Your task to perform on an android device: turn on bluetooth scan Image 0: 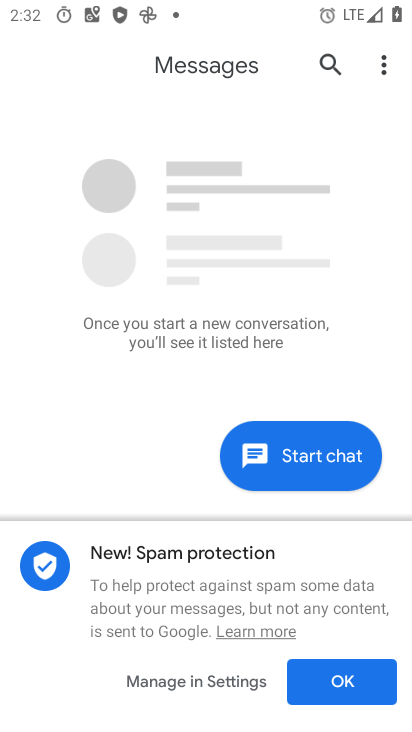
Step 0: press home button
Your task to perform on an android device: turn on bluetooth scan Image 1: 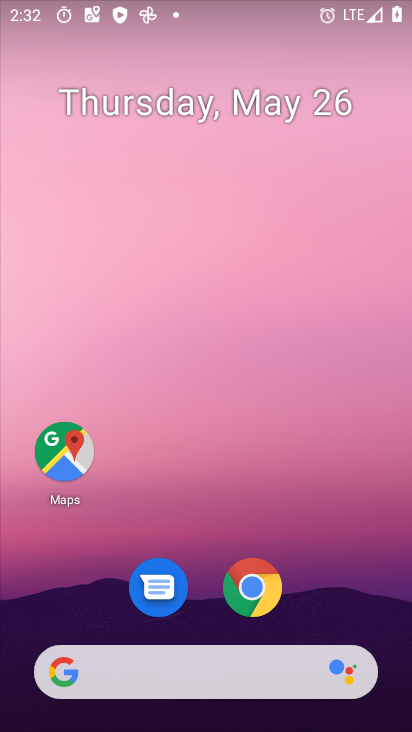
Step 1: drag from (351, 607) to (364, 168)
Your task to perform on an android device: turn on bluetooth scan Image 2: 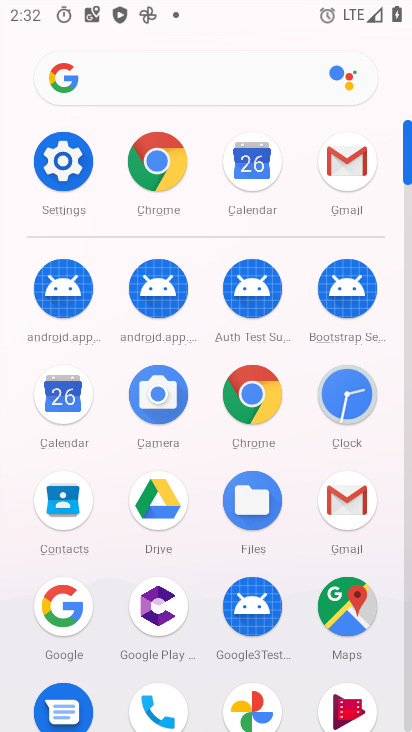
Step 2: click (69, 160)
Your task to perform on an android device: turn on bluetooth scan Image 3: 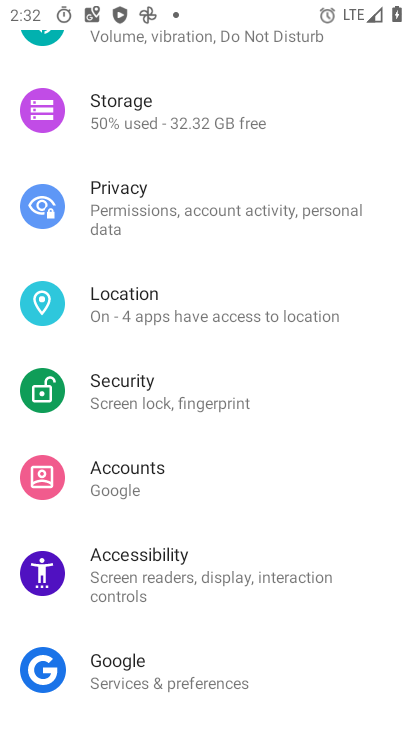
Step 3: drag from (340, 132) to (354, 214)
Your task to perform on an android device: turn on bluetooth scan Image 4: 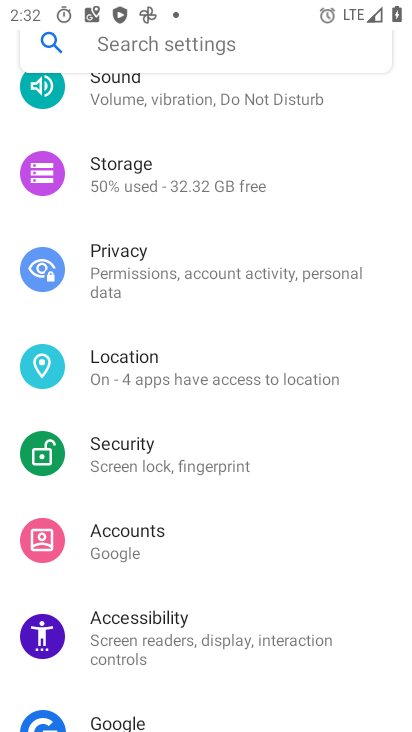
Step 4: drag from (356, 115) to (353, 236)
Your task to perform on an android device: turn on bluetooth scan Image 5: 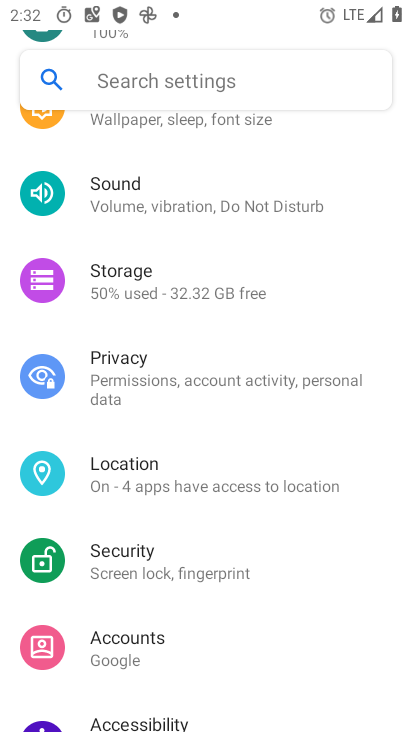
Step 5: drag from (354, 149) to (363, 257)
Your task to perform on an android device: turn on bluetooth scan Image 6: 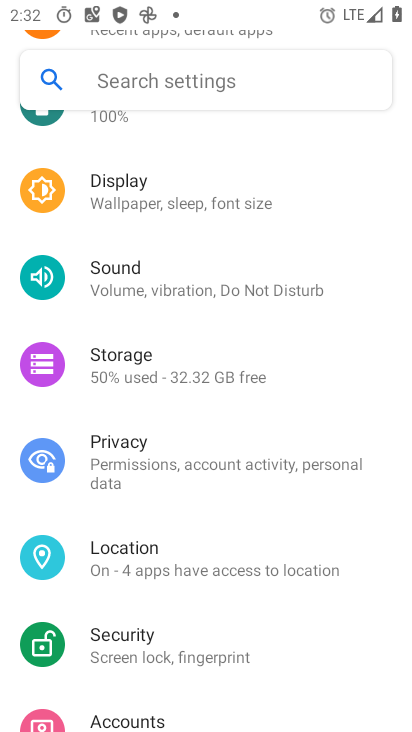
Step 6: drag from (354, 165) to (341, 277)
Your task to perform on an android device: turn on bluetooth scan Image 7: 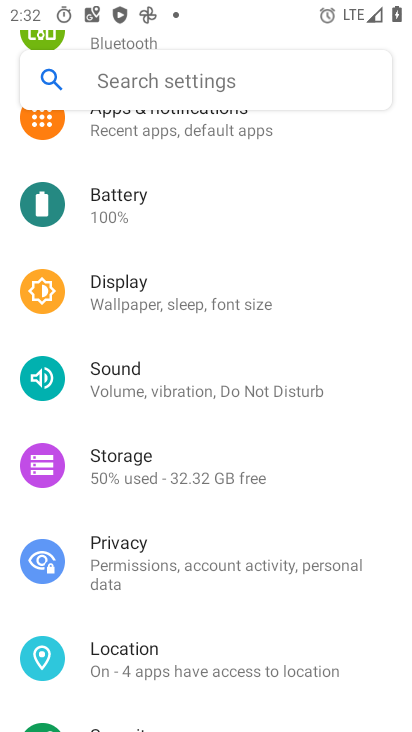
Step 7: drag from (332, 174) to (310, 286)
Your task to perform on an android device: turn on bluetooth scan Image 8: 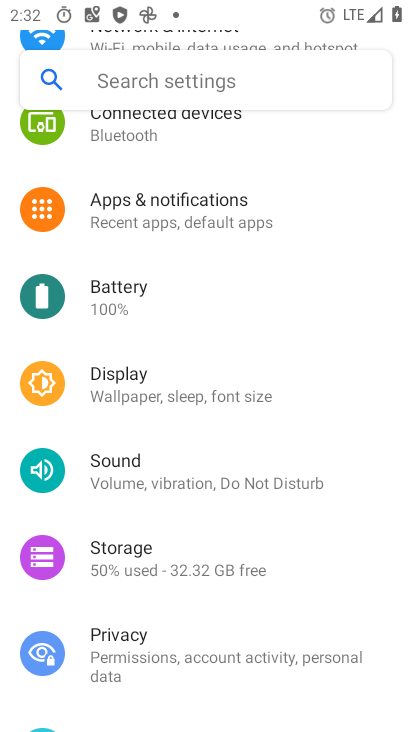
Step 8: drag from (319, 158) to (302, 297)
Your task to perform on an android device: turn on bluetooth scan Image 9: 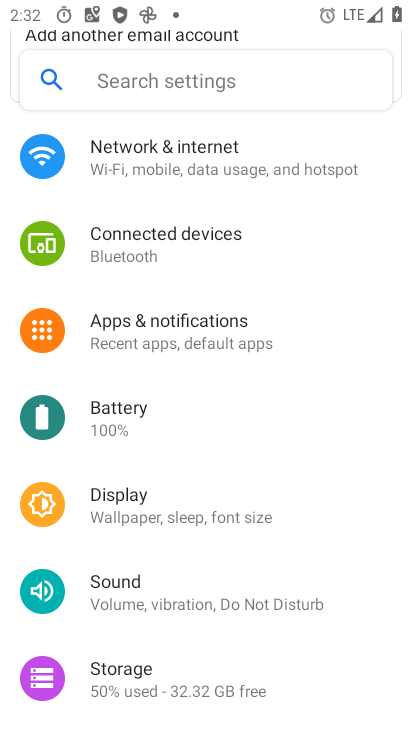
Step 9: drag from (344, 152) to (342, 306)
Your task to perform on an android device: turn on bluetooth scan Image 10: 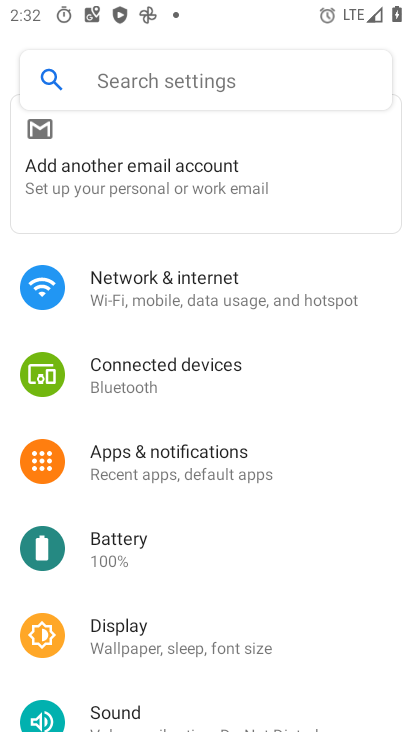
Step 10: drag from (335, 320) to (359, 200)
Your task to perform on an android device: turn on bluetooth scan Image 11: 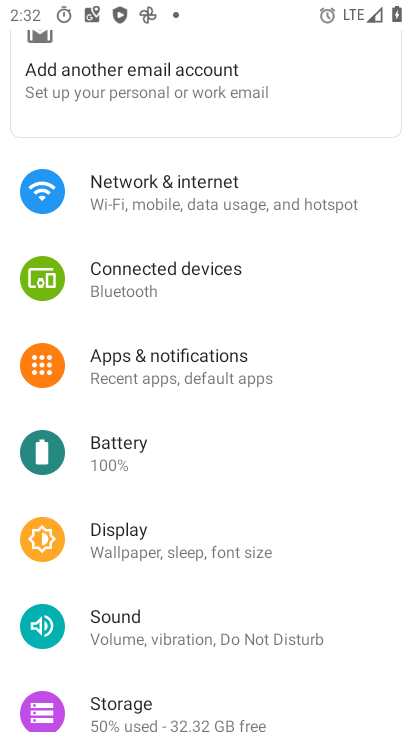
Step 11: drag from (343, 302) to (366, 187)
Your task to perform on an android device: turn on bluetooth scan Image 12: 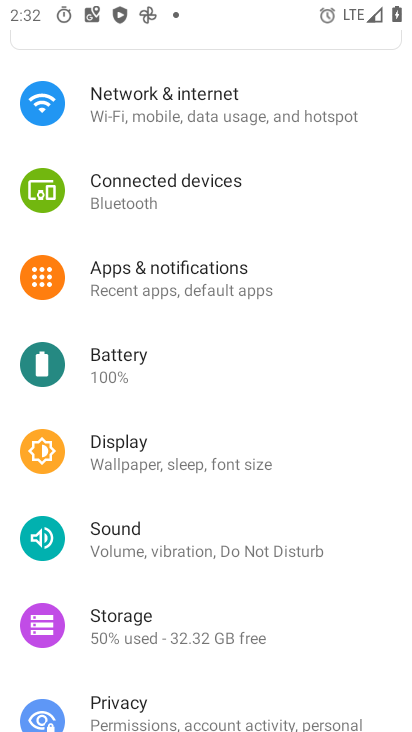
Step 12: drag from (343, 319) to (359, 199)
Your task to perform on an android device: turn on bluetooth scan Image 13: 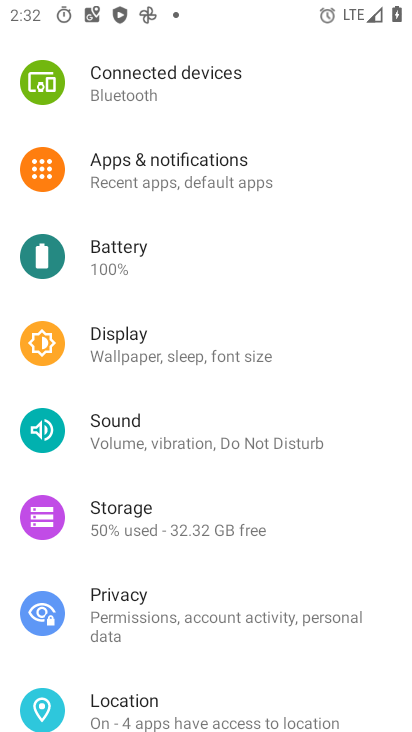
Step 13: drag from (364, 446) to (360, 293)
Your task to perform on an android device: turn on bluetooth scan Image 14: 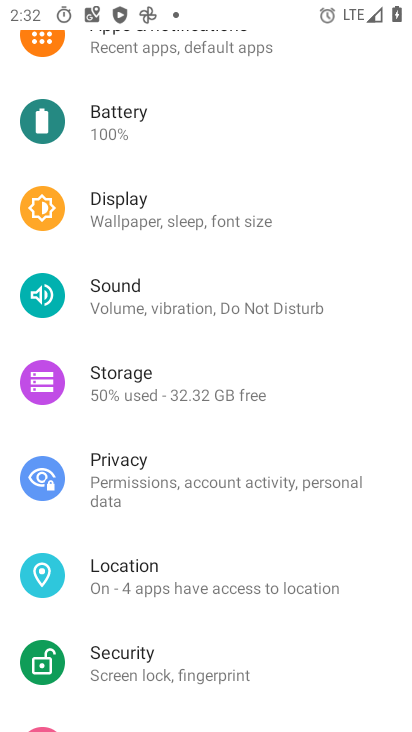
Step 14: drag from (332, 513) to (333, 350)
Your task to perform on an android device: turn on bluetooth scan Image 15: 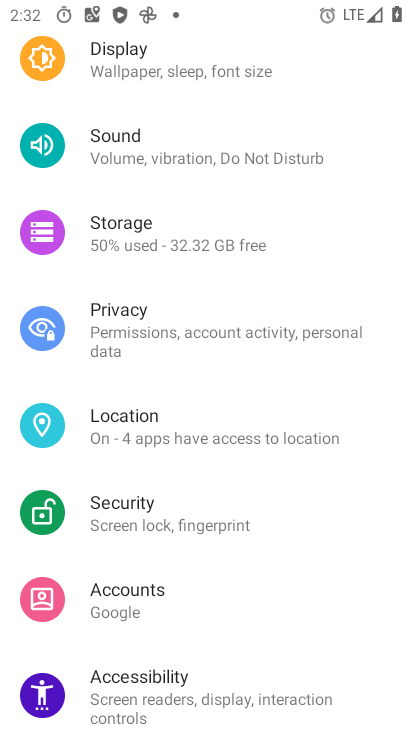
Step 15: drag from (332, 500) to (356, 381)
Your task to perform on an android device: turn on bluetooth scan Image 16: 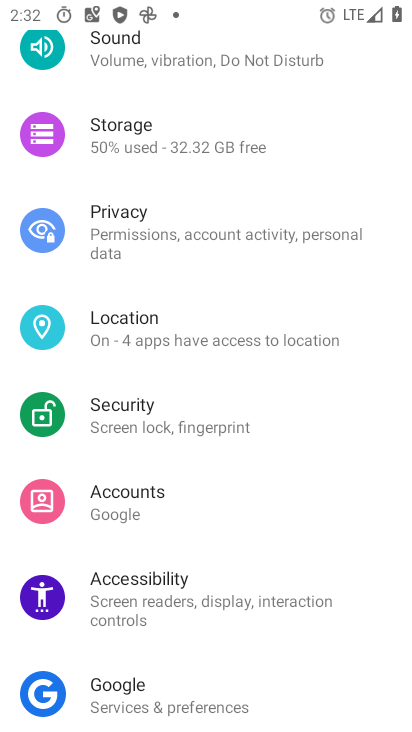
Step 16: drag from (326, 502) to (323, 401)
Your task to perform on an android device: turn on bluetooth scan Image 17: 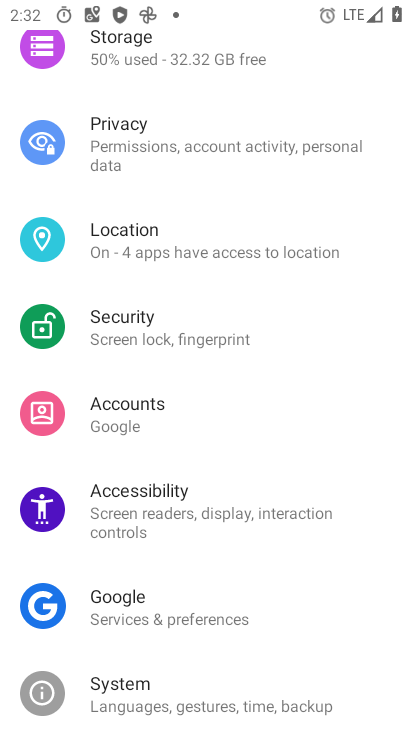
Step 17: drag from (336, 548) to (346, 419)
Your task to perform on an android device: turn on bluetooth scan Image 18: 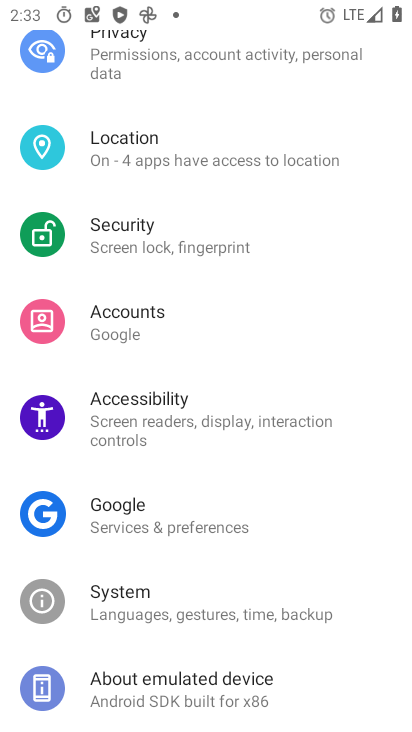
Step 18: drag from (323, 572) to (342, 458)
Your task to perform on an android device: turn on bluetooth scan Image 19: 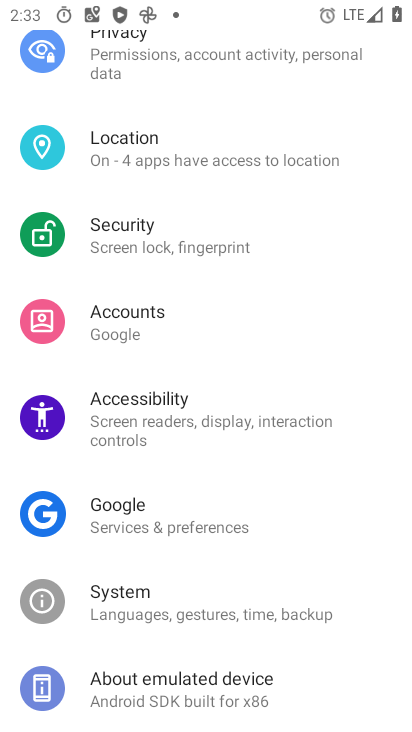
Step 19: drag from (320, 331) to (314, 426)
Your task to perform on an android device: turn on bluetooth scan Image 20: 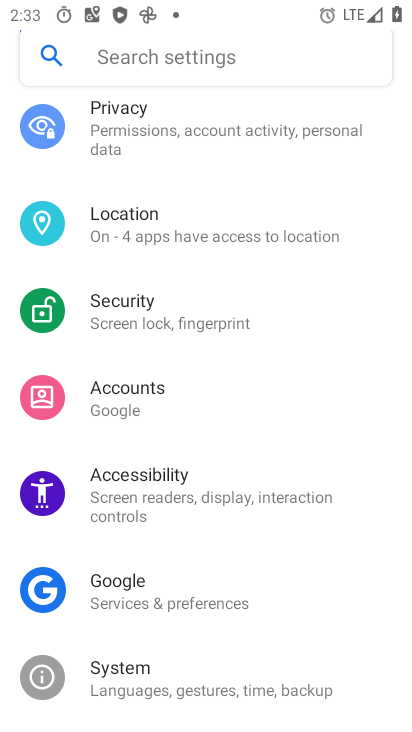
Step 20: drag from (315, 288) to (287, 413)
Your task to perform on an android device: turn on bluetooth scan Image 21: 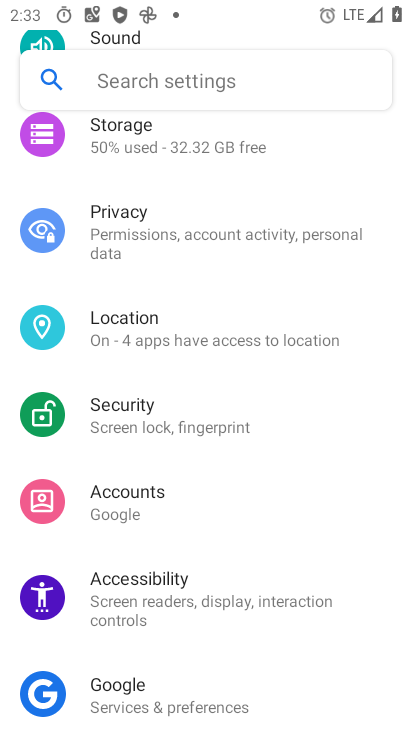
Step 21: drag from (320, 262) to (321, 469)
Your task to perform on an android device: turn on bluetooth scan Image 22: 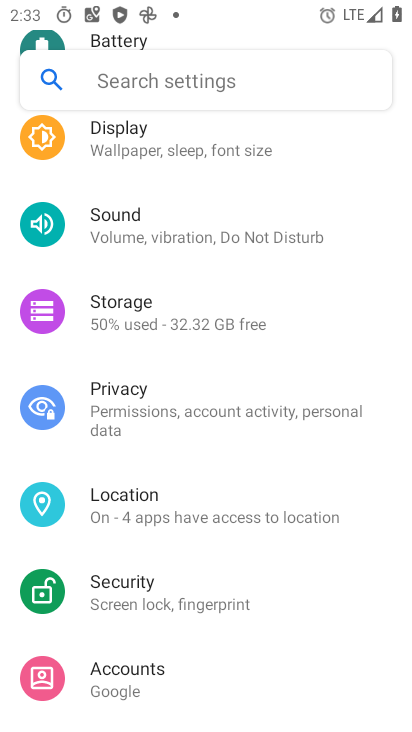
Step 22: click (206, 508)
Your task to perform on an android device: turn on bluetooth scan Image 23: 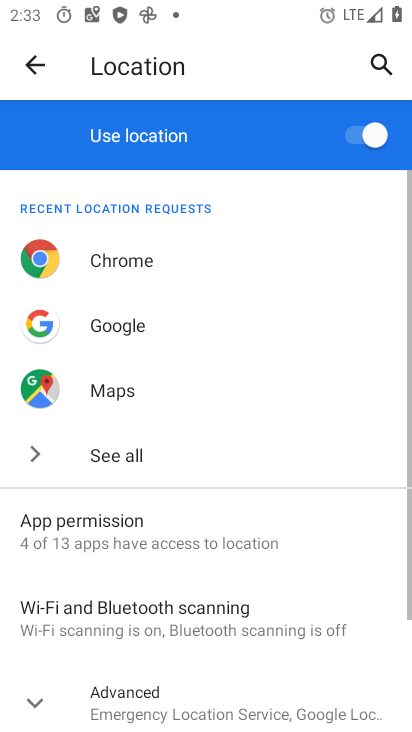
Step 23: drag from (275, 531) to (327, 241)
Your task to perform on an android device: turn on bluetooth scan Image 24: 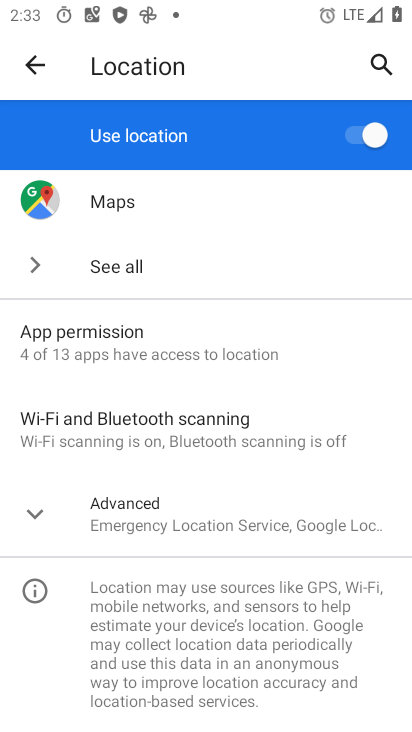
Step 24: click (208, 422)
Your task to perform on an android device: turn on bluetooth scan Image 25: 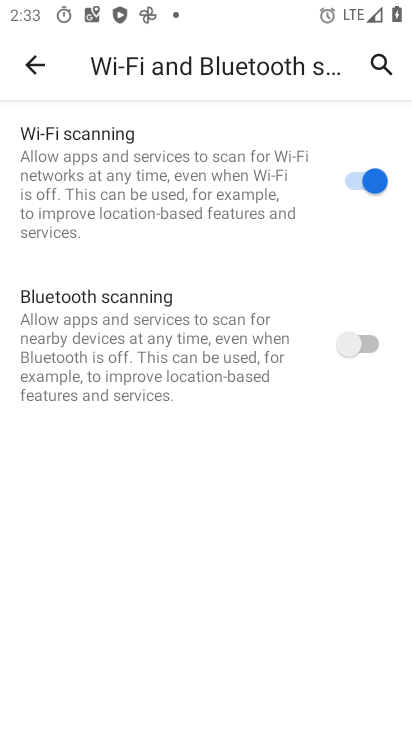
Step 25: click (338, 334)
Your task to perform on an android device: turn on bluetooth scan Image 26: 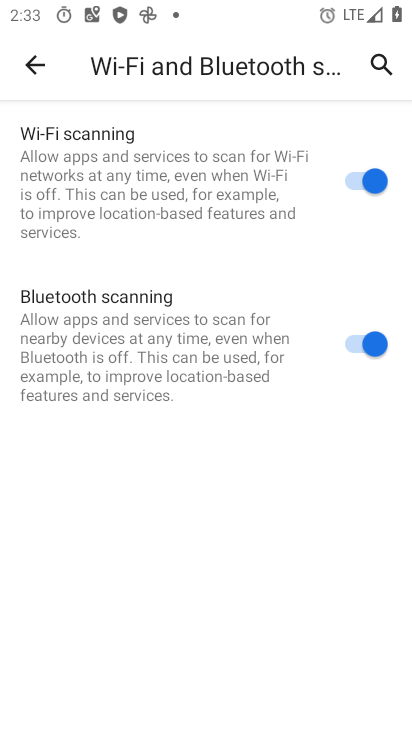
Step 26: task complete